Your task to perform on an android device: change the clock display to digital Image 0: 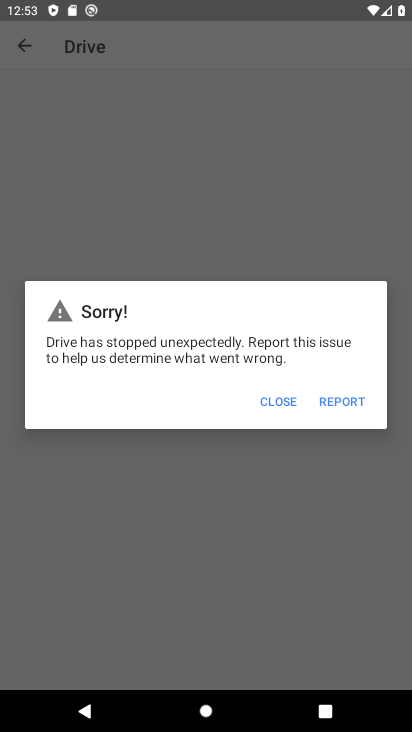
Step 0: press home button
Your task to perform on an android device: change the clock display to digital Image 1: 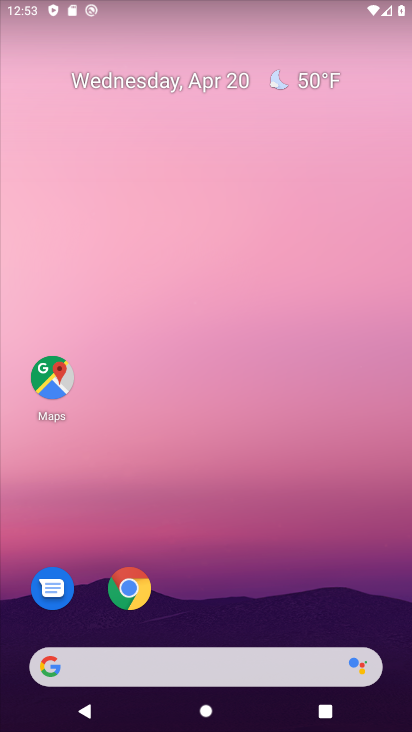
Step 1: drag from (208, 646) to (224, 322)
Your task to perform on an android device: change the clock display to digital Image 2: 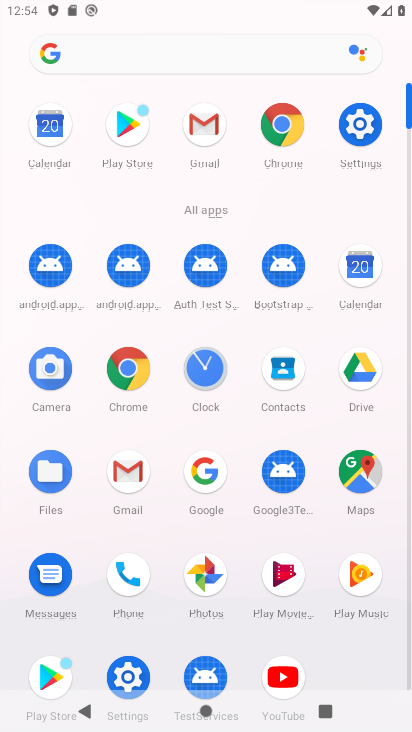
Step 2: click (201, 364)
Your task to perform on an android device: change the clock display to digital Image 3: 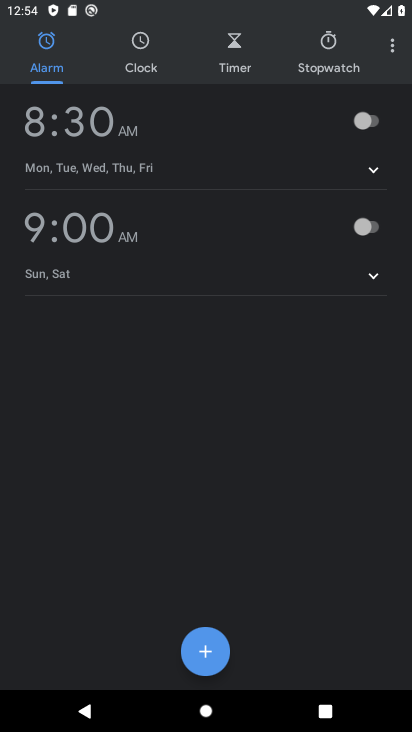
Step 3: click (390, 43)
Your task to perform on an android device: change the clock display to digital Image 4: 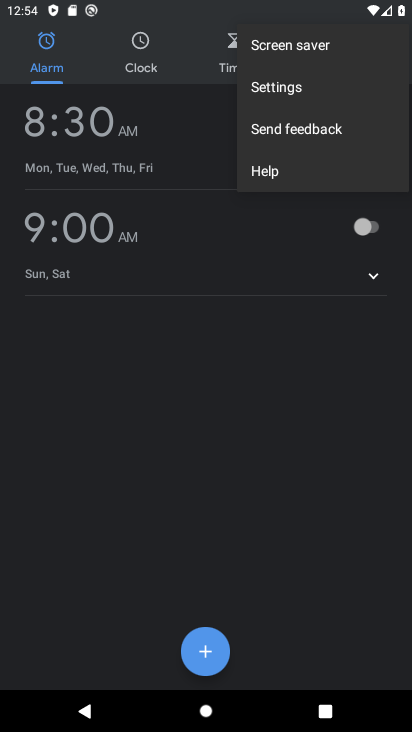
Step 4: click (291, 90)
Your task to perform on an android device: change the clock display to digital Image 5: 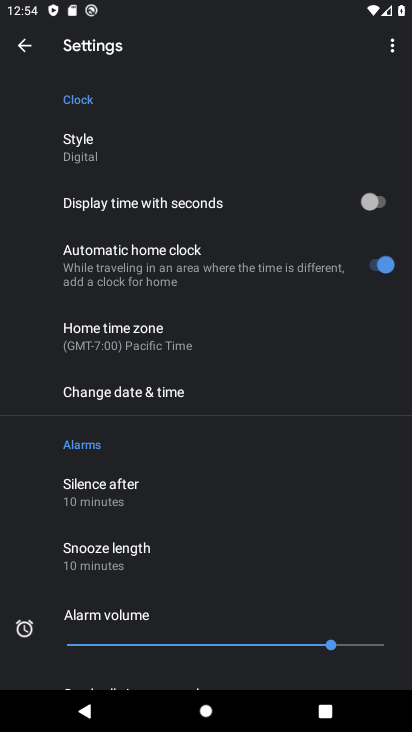
Step 5: task complete